Your task to perform on an android device: Search for vegetarian restaurants on Maps Image 0: 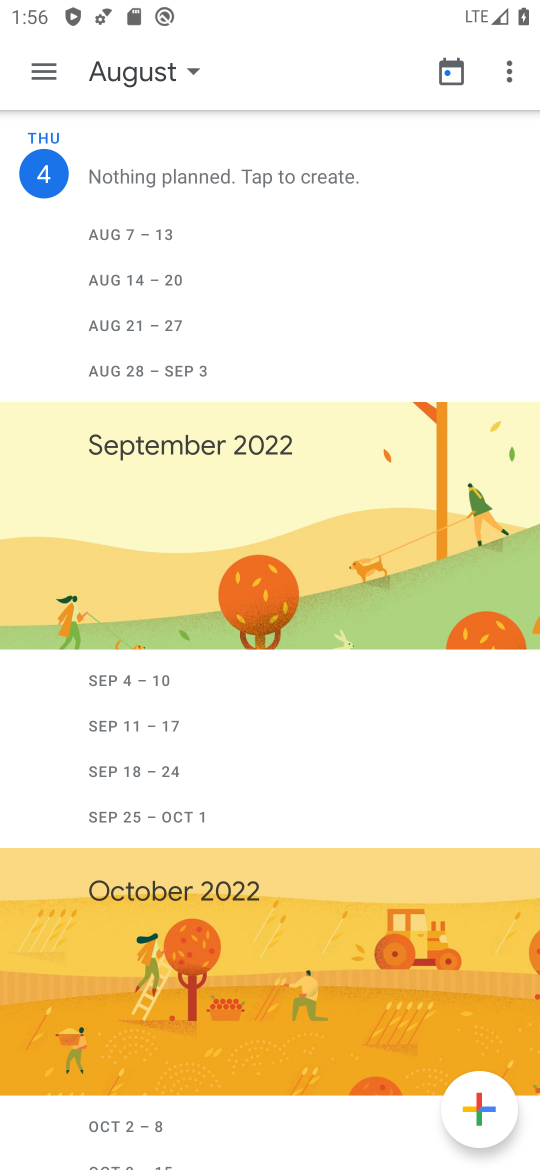
Step 0: press home button
Your task to perform on an android device: Search for vegetarian restaurants on Maps Image 1: 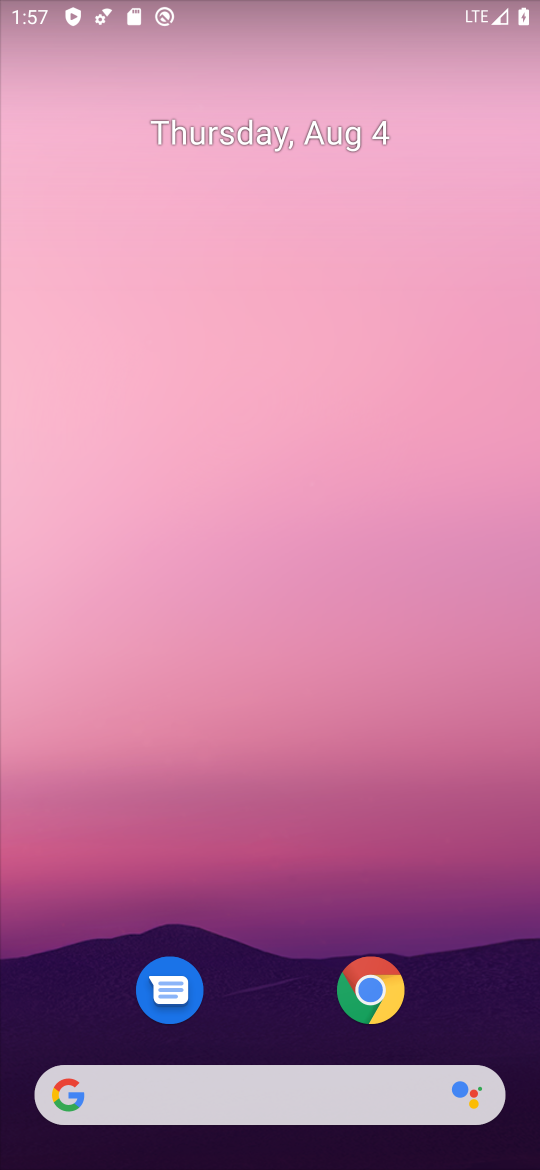
Step 1: task complete